Your task to perform on an android device: toggle airplane mode Image 0: 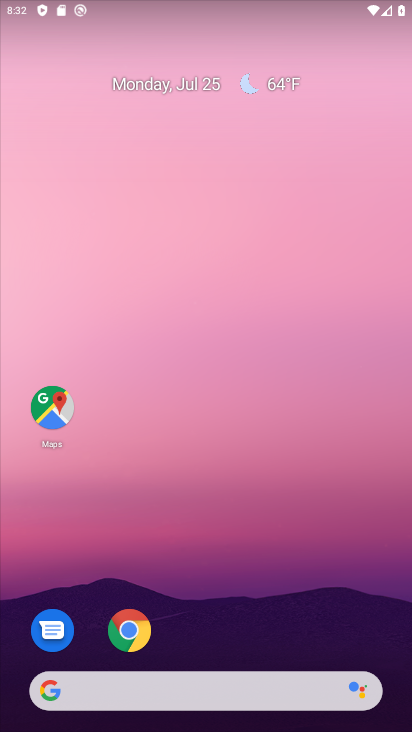
Step 0: drag from (379, 642) to (298, 235)
Your task to perform on an android device: toggle airplane mode Image 1: 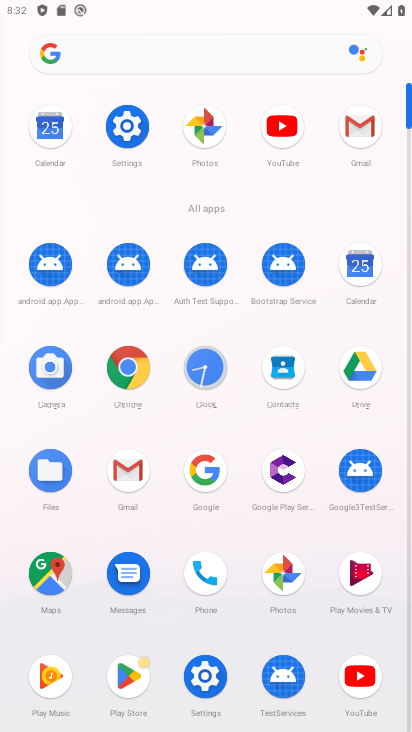
Step 1: click (207, 680)
Your task to perform on an android device: toggle airplane mode Image 2: 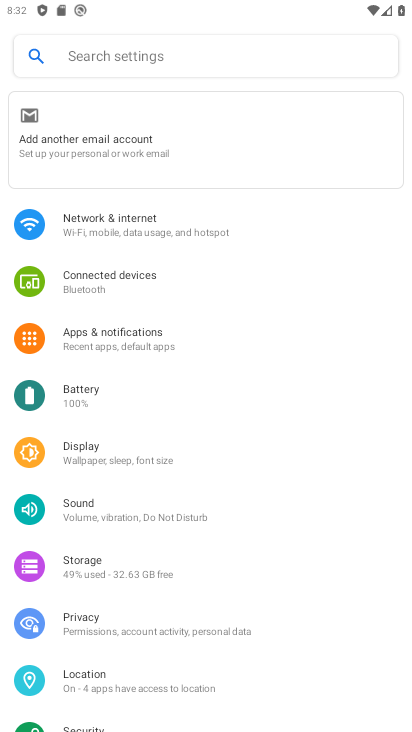
Step 2: click (104, 220)
Your task to perform on an android device: toggle airplane mode Image 3: 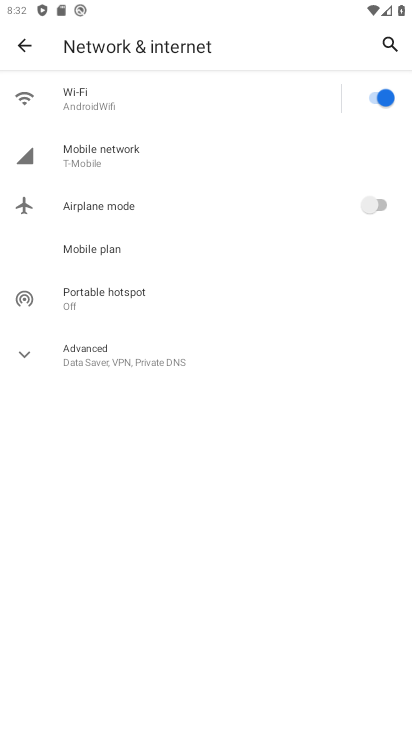
Step 3: click (384, 206)
Your task to perform on an android device: toggle airplane mode Image 4: 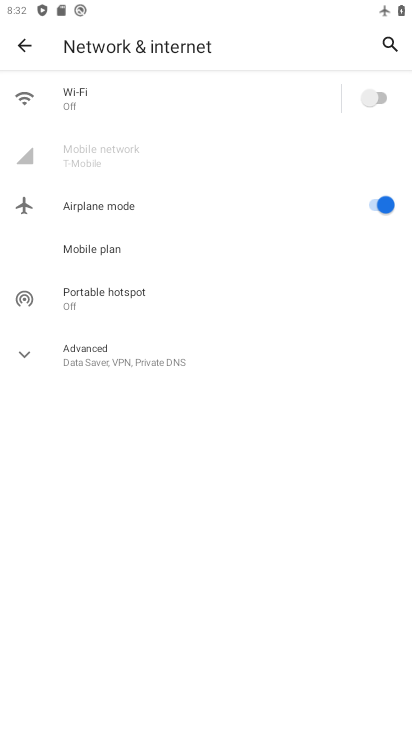
Step 4: task complete